Your task to perform on an android device: turn on bluetooth scan Image 0: 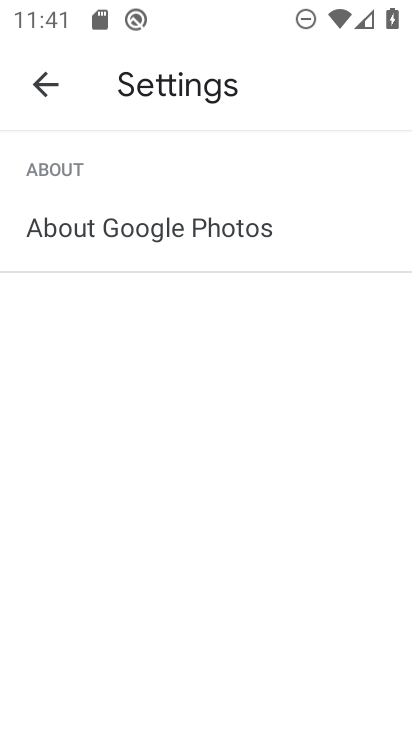
Step 0: press home button
Your task to perform on an android device: turn on bluetooth scan Image 1: 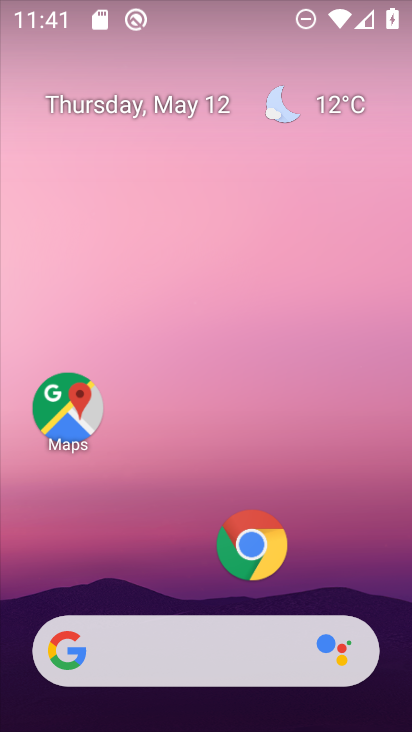
Step 1: drag from (194, 589) to (239, 88)
Your task to perform on an android device: turn on bluetooth scan Image 2: 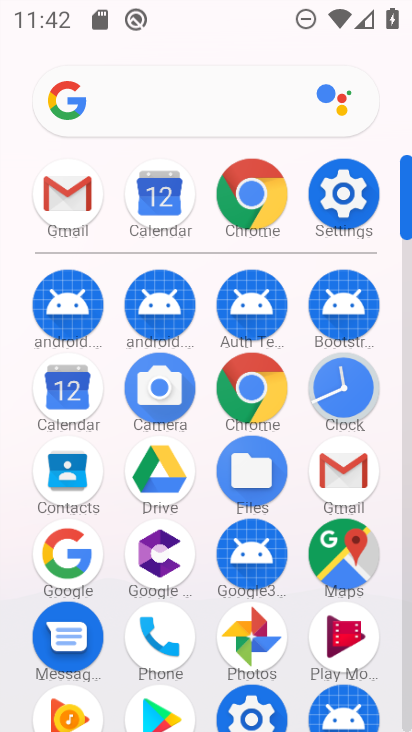
Step 2: click (339, 185)
Your task to perform on an android device: turn on bluetooth scan Image 3: 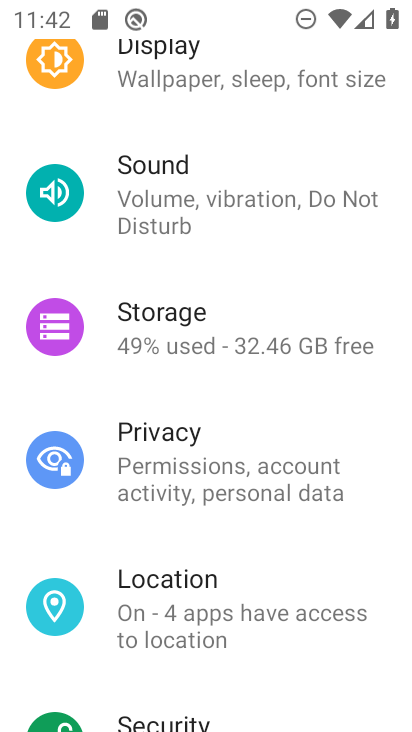
Step 3: drag from (202, 109) to (229, 56)
Your task to perform on an android device: turn on bluetooth scan Image 4: 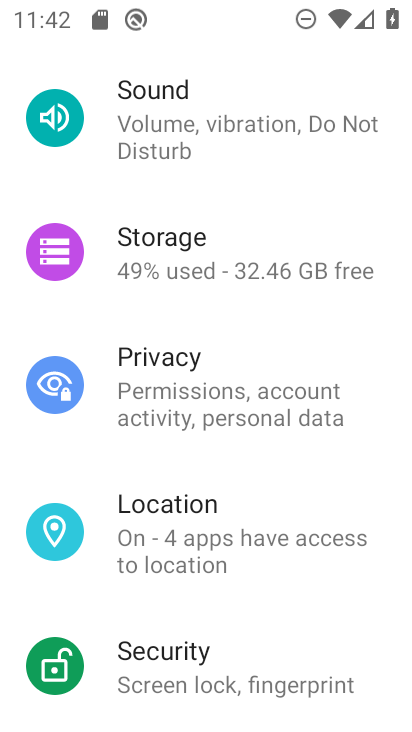
Step 4: click (245, 551)
Your task to perform on an android device: turn on bluetooth scan Image 5: 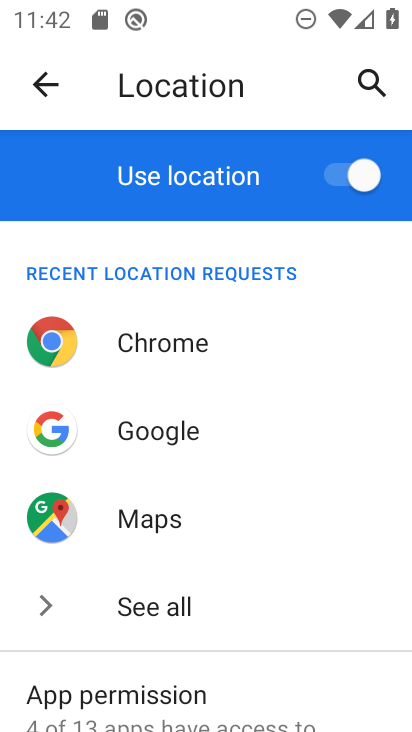
Step 5: drag from (166, 649) to (184, 256)
Your task to perform on an android device: turn on bluetooth scan Image 6: 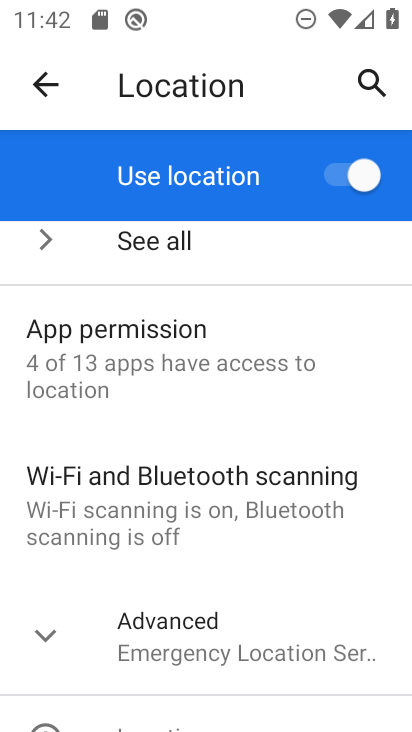
Step 6: click (205, 502)
Your task to perform on an android device: turn on bluetooth scan Image 7: 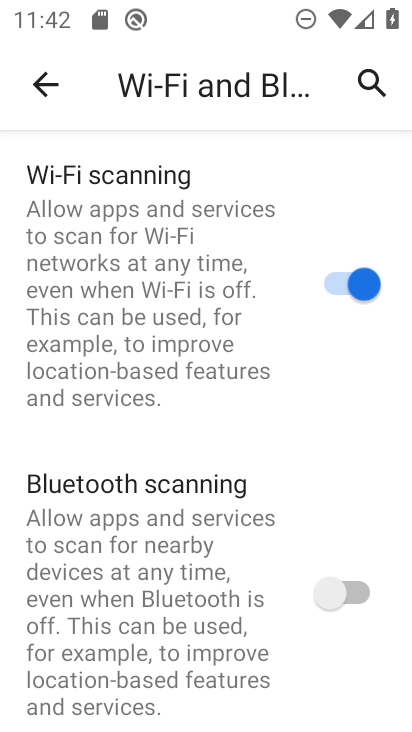
Step 7: click (350, 587)
Your task to perform on an android device: turn on bluetooth scan Image 8: 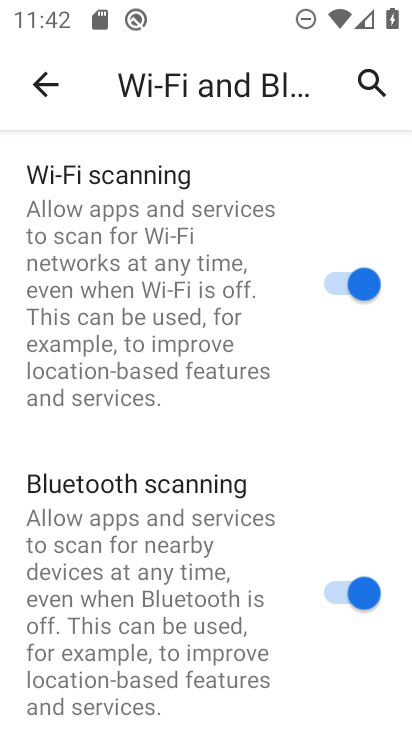
Step 8: task complete